Your task to perform on an android device: toggle translation in the chrome app Image 0: 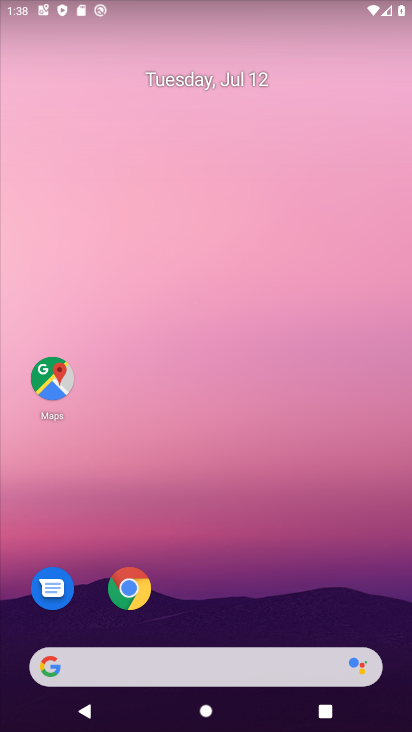
Step 0: click (328, 301)
Your task to perform on an android device: toggle translation in the chrome app Image 1: 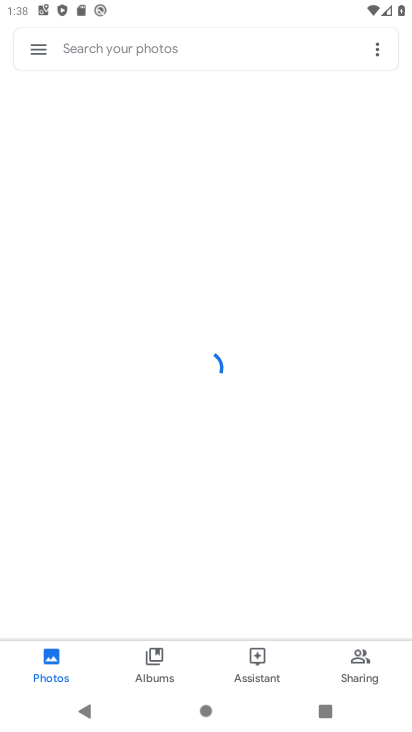
Step 1: drag from (188, 531) to (378, 53)
Your task to perform on an android device: toggle translation in the chrome app Image 2: 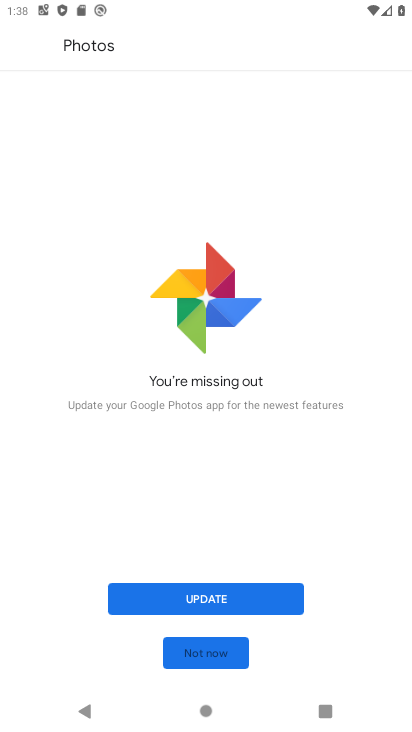
Step 2: press home button
Your task to perform on an android device: toggle translation in the chrome app Image 3: 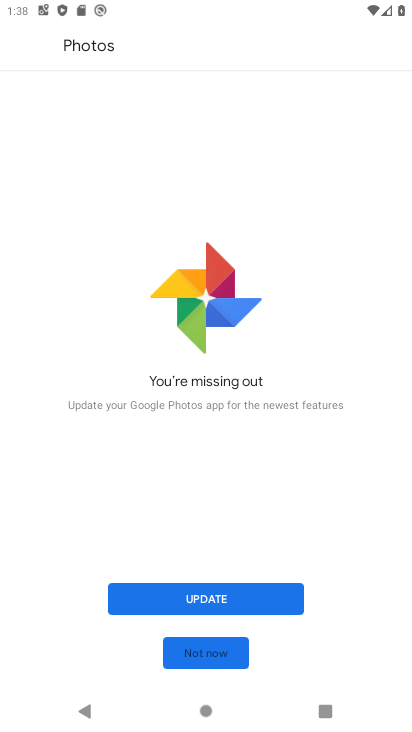
Step 3: press home button
Your task to perform on an android device: toggle translation in the chrome app Image 4: 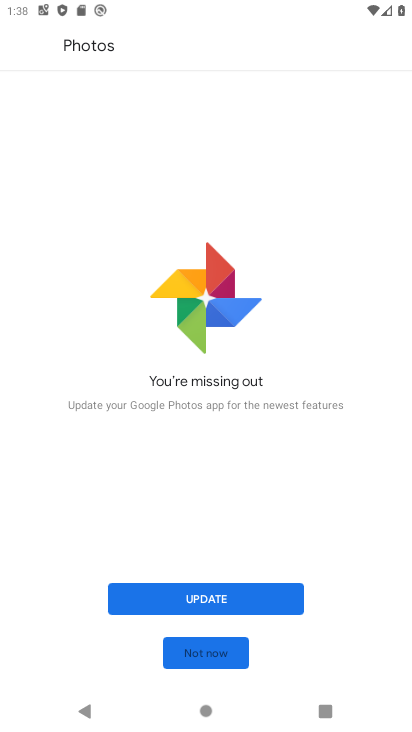
Step 4: click (319, 139)
Your task to perform on an android device: toggle translation in the chrome app Image 5: 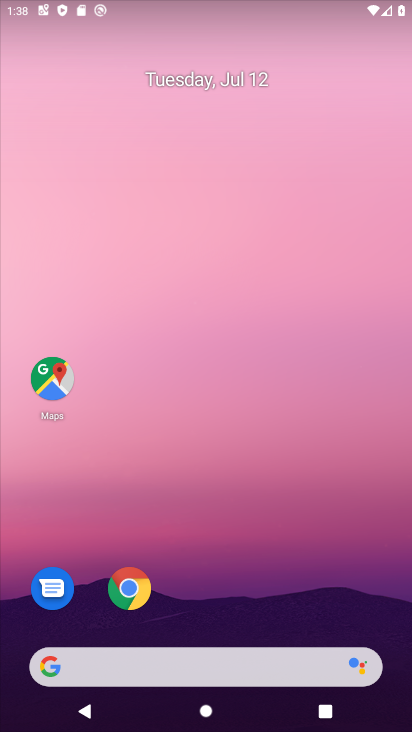
Step 5: click (211, 660)
Your task to perform on an android device: toggle translation in the chrome app Image 6: 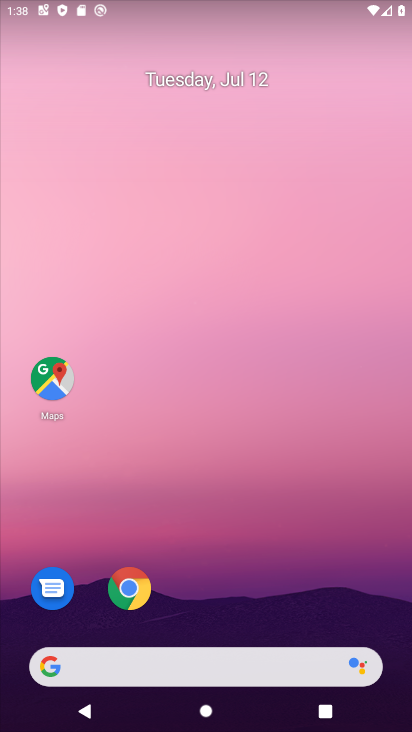
Step 6: drag from (228, 586) to (332, 207)
Your task to perform on an android device: toggle translation in the chrome app Image 7: 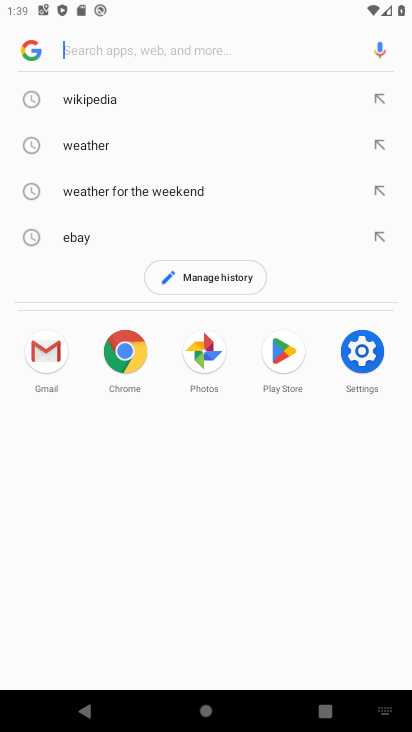
Step 7: drag from (198, 508) to (342, 112)
Your task to perform on an android device: toggle translation in the chrome app Image 8: 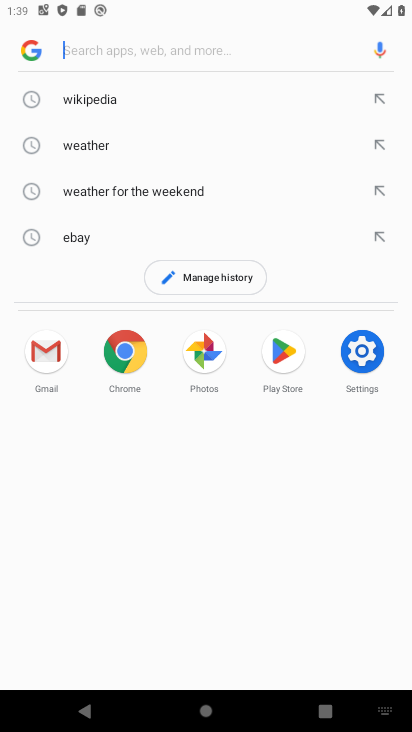
Step 8: press home button
Your task to perform on an android device: toggle translation in the chrome app Image 9: 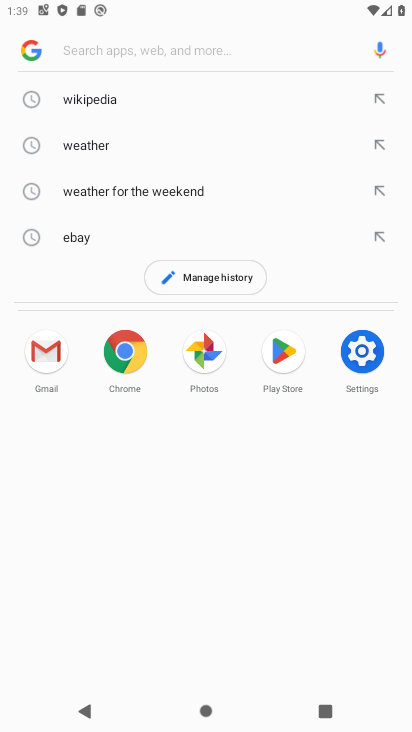
Step 9: press home button
Your task to perform on an android device: toggle translation in the chrome app Image 10: 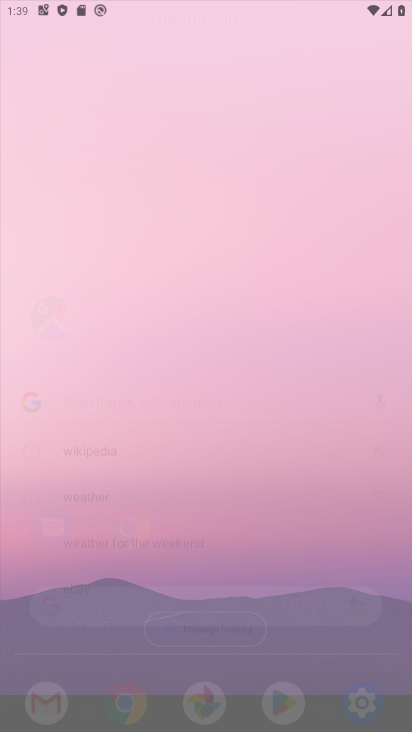
Step 10: click (250, 144)
Your task to perform on an android device: toggle translation in the chrome app Image 11: 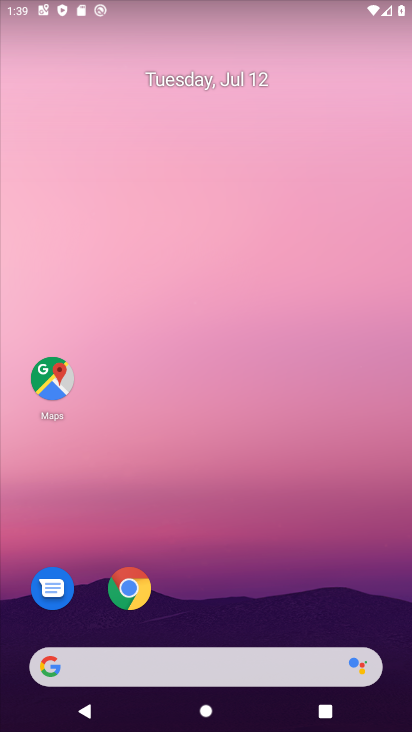
Step 11: drag from (137, 588) to (256, 238)
Your task to perform on an android device: toggle translation in the chrome app Image 12: 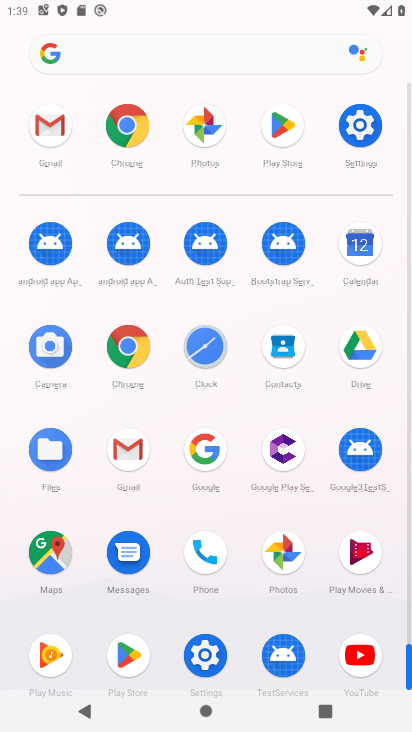
Step 12: click (136, 340)
Your task to perform on an android device: toggle translation in the chrome app Image 13: 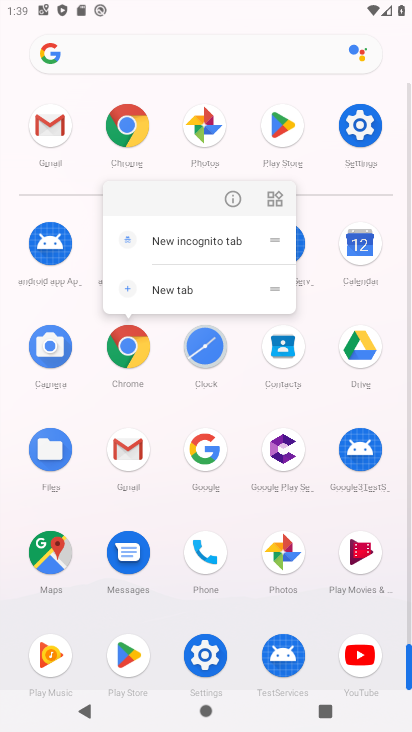
Step 13: click (233, 196)
Your task to perform on an android device: toggle translation in the chrome app Image 14: 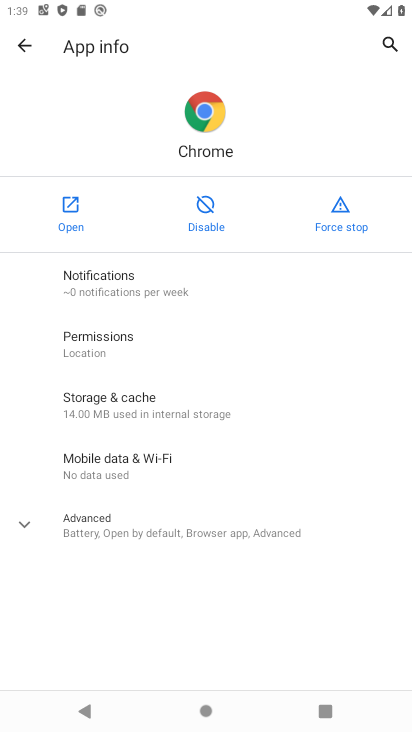
Step 14: click (81, 218)
Your task to perform on an android device: toggle translation in the chrome app Image 15: 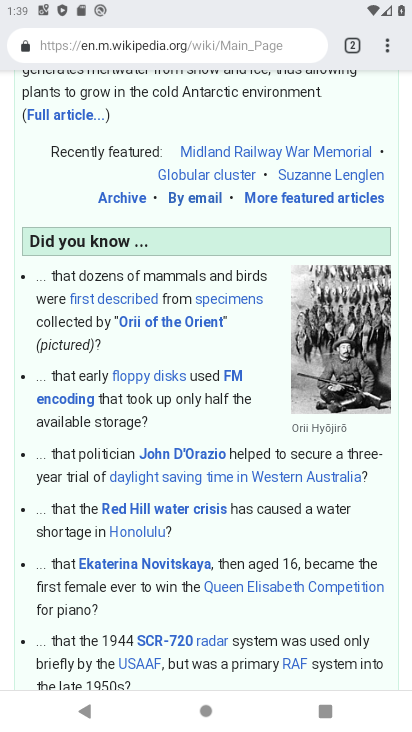
Step 15: drag from (222, 158) to (352, 707)
Your task to perform on an android device: toggle translation in the chrome app Image 16: 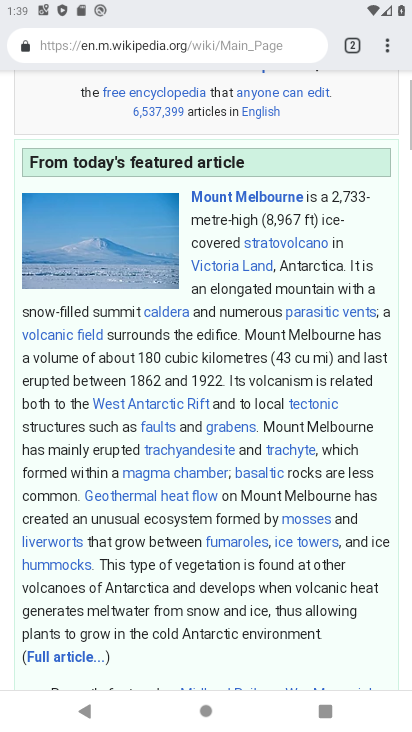
Step 16: click (384, 56)
Your task to perform on an android device: toggle translation in the chrome app Image 17: 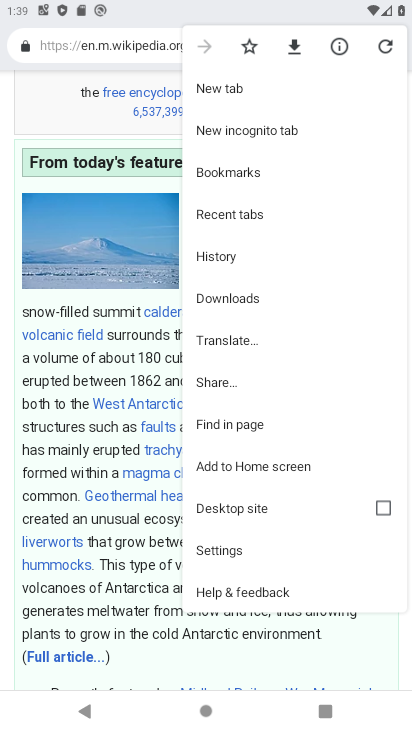
Step 17: click (224, 540)
Your task to perform on an android device: toggle translation in the chrome app Image 18: 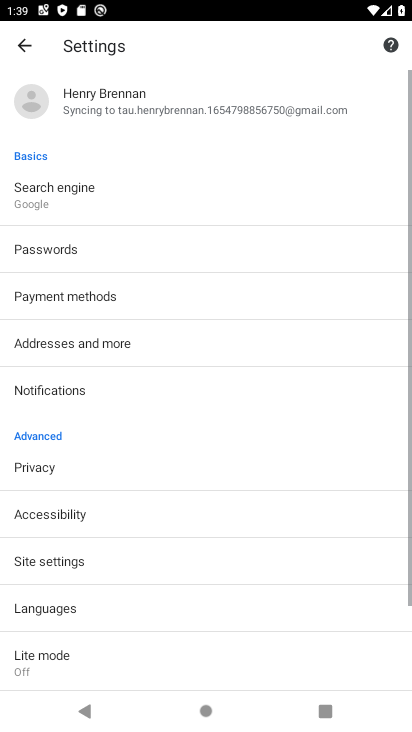
Step 18: drag from (129, 388) to (224, 107)
Your task to perform on an android device: toggle translation in the chrome app Image 19: 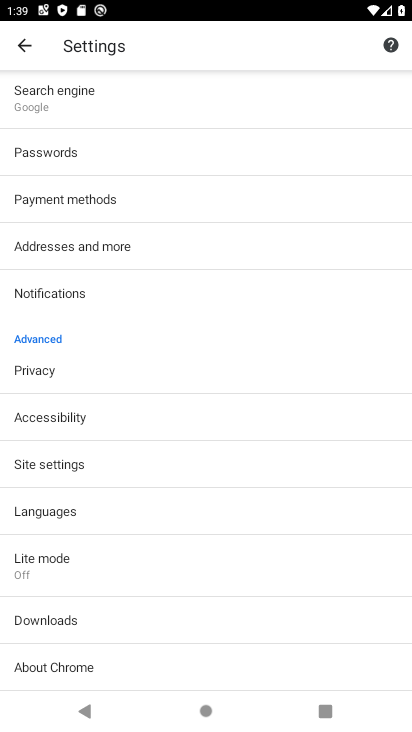
Step 19: click (75, 468)
Your task to perform on an android device: toggle translation in the chrome app Image 20: 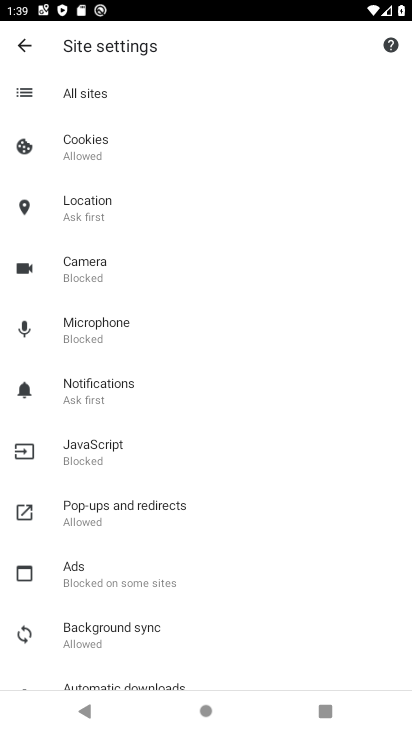
Step 20: drag from (260, 606) to (276, 366)
Your task to perform on an android device: toggle translation in the chrome app Image 21: 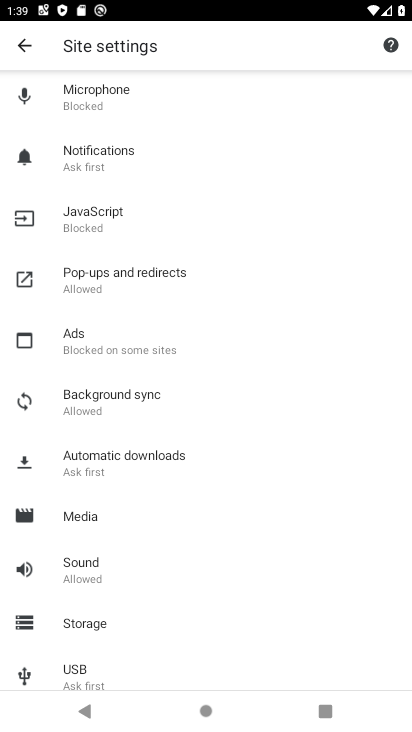
Step 21: drag from (166, 164) to (214, 458)
Your task to perform on an android device: toggle translation in the chrome app Image 22: 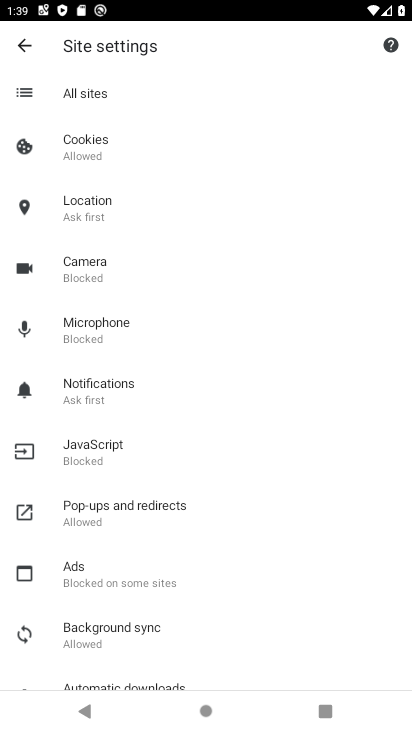
Step 22: drag from (268, 222) to (275, 650)
Your task to perform on an android device: toggle translation in the chrome app Image 23: 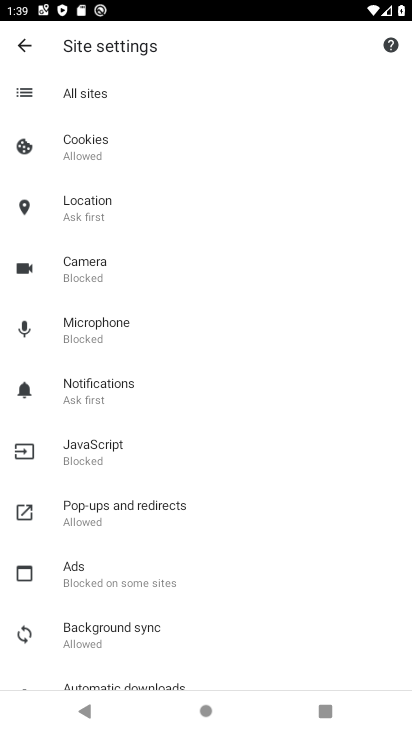
Step 23: drag from (204, 504) to (205, 244)
Your task to perform on an android device: toggle translation in the chrome app Image 24: 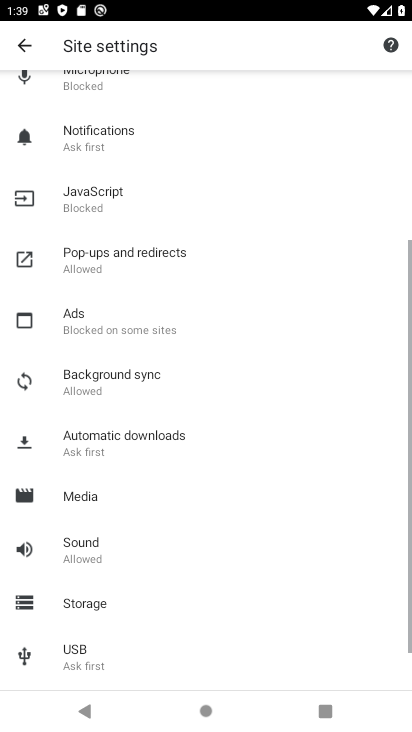
Step 24: drag from (214, 596) to (261, 304)
Your task to perform on an android device: toggle translation in the chrome app Image 25: 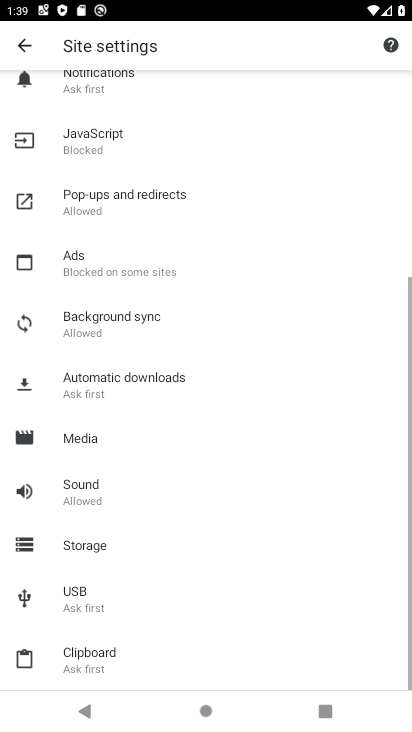
Step 25: drag from (237, 620) to (242, 394)
Your task to perform on an android device: toggle translation in the chrome app Image 26: 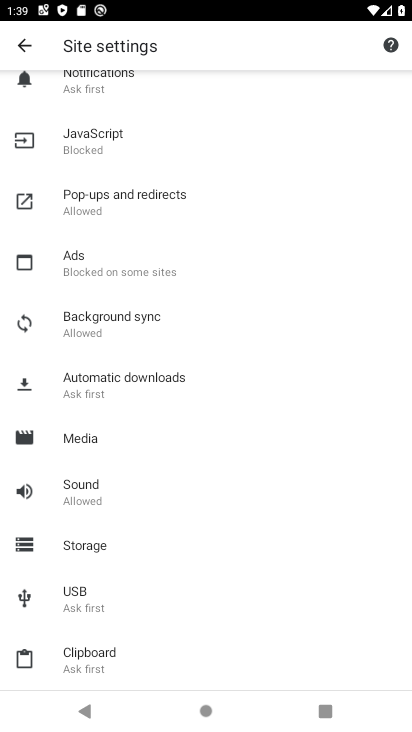
Step 26: click (30, 57)
Your task to perform on an android device: toggle translation in the chrome app Image 27: 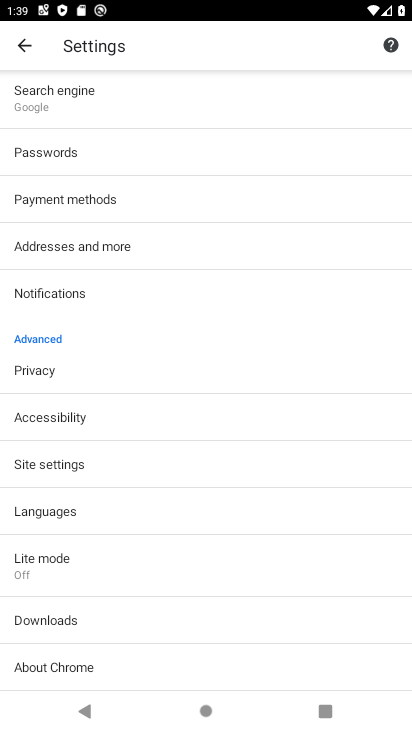
Step 27: drag from (141, 598) to (187, 342)
Your task to perform on an android device: toggle translation in the chrome app Image 28: 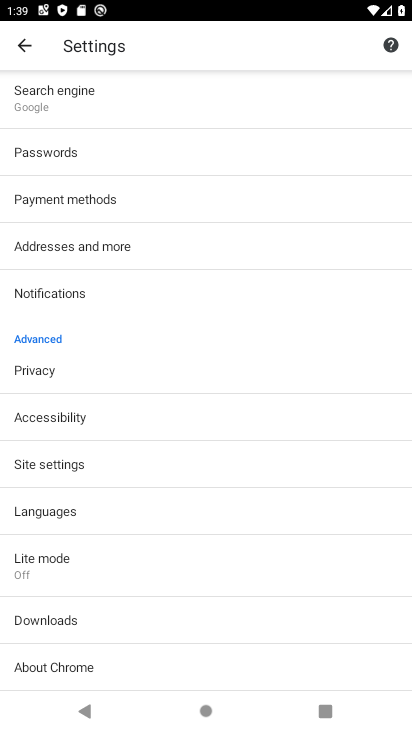
Step 28: click (88, 514)
Your task to perform on an android device: toggle translation in the chrome app Image 29: 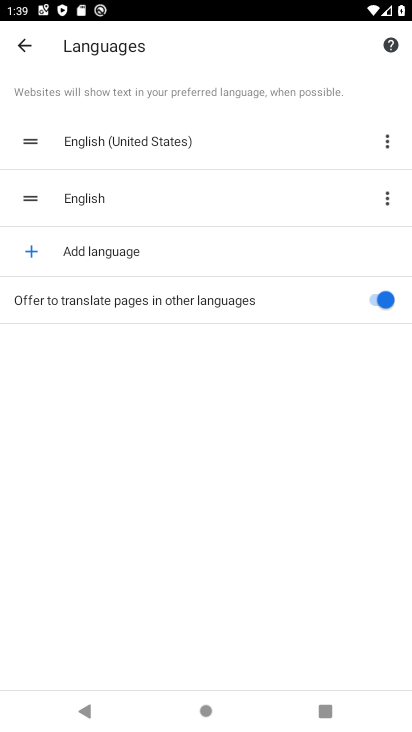
Step 29: click (380, 300)
Your task to perform on an android device: toggle translation in the chrome app Image 30: 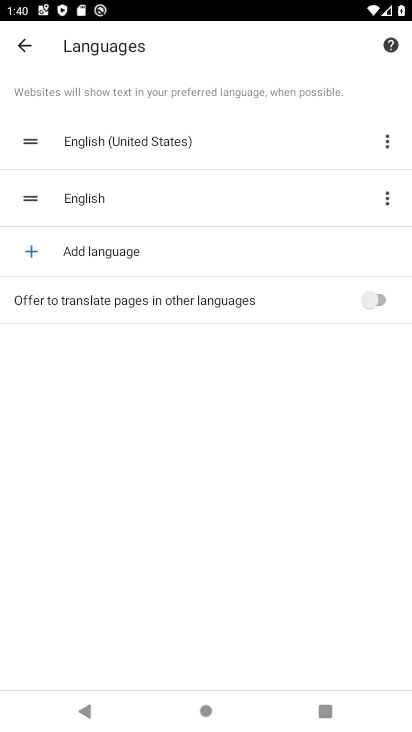
Step 30: task complete